Your task to perform on an android device: Install the Yelp app Image 0: 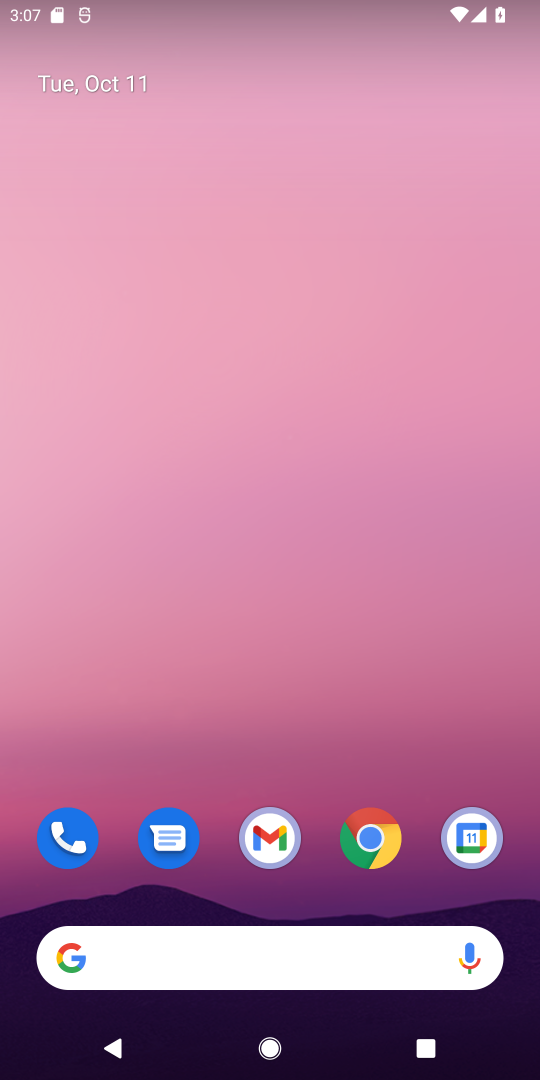
Step 0: click (361, 827)
Your task to perform on an android device: Install the Yelp app Image 1: 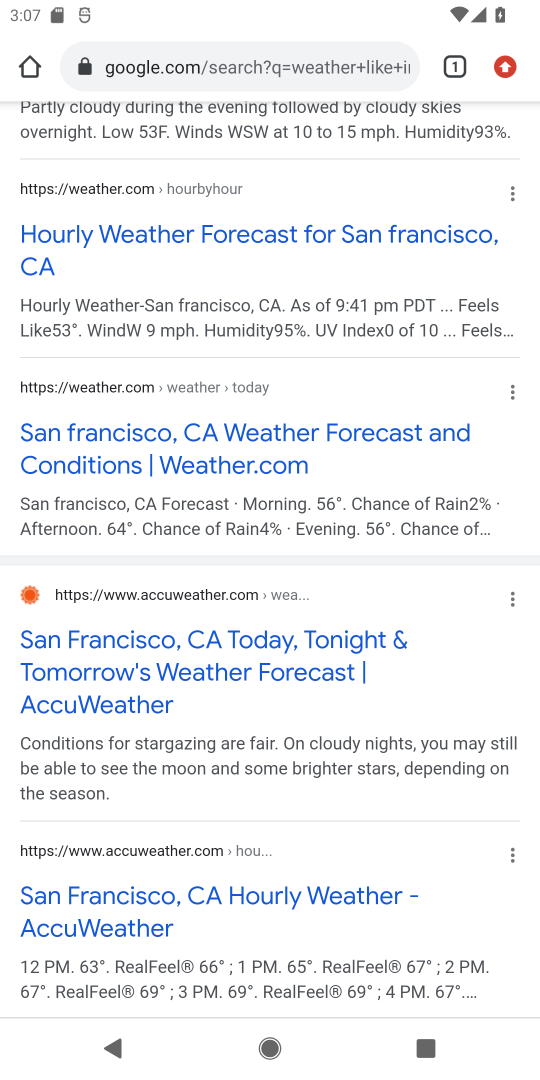
Step 1: press home button
Your task to perform on an android device: Install the Yelp app Image 2: 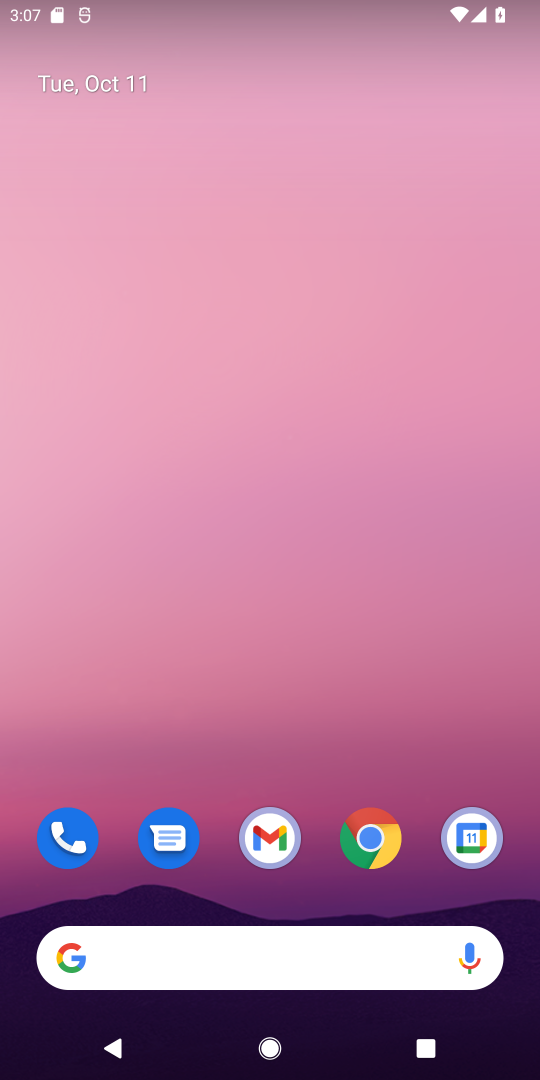
Step 2: drag from (302, 475) to (303, 43)
Your task to perform on an android device: Install the Yelp app Image 3: 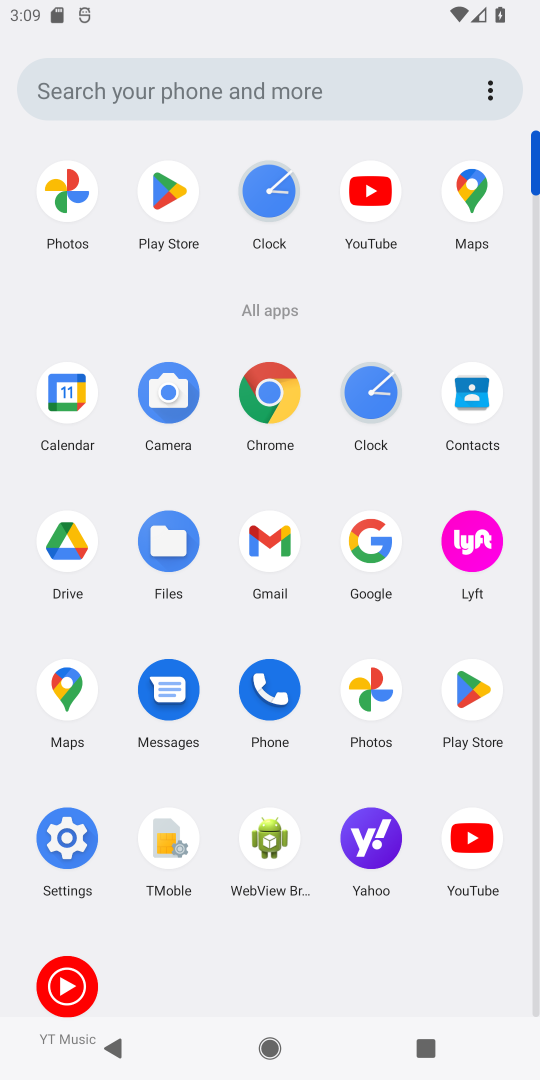
Step 3: click (167, 199)
Your task to perform on an android device: Install the Yelp app Image 4: 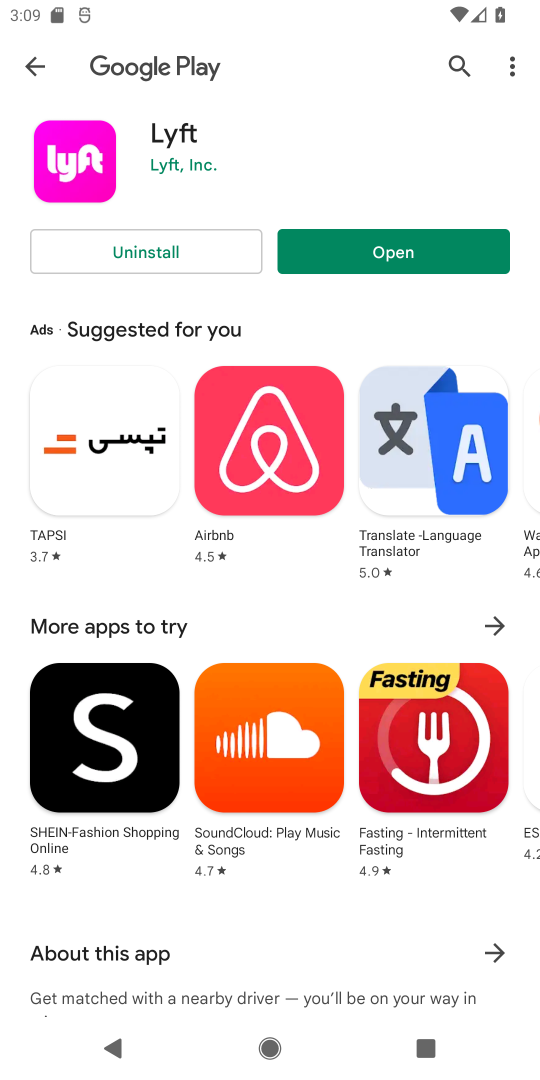
Step 4: click (452, 57)
Your task to perform on an android device: Install the Yelp app Image 5: 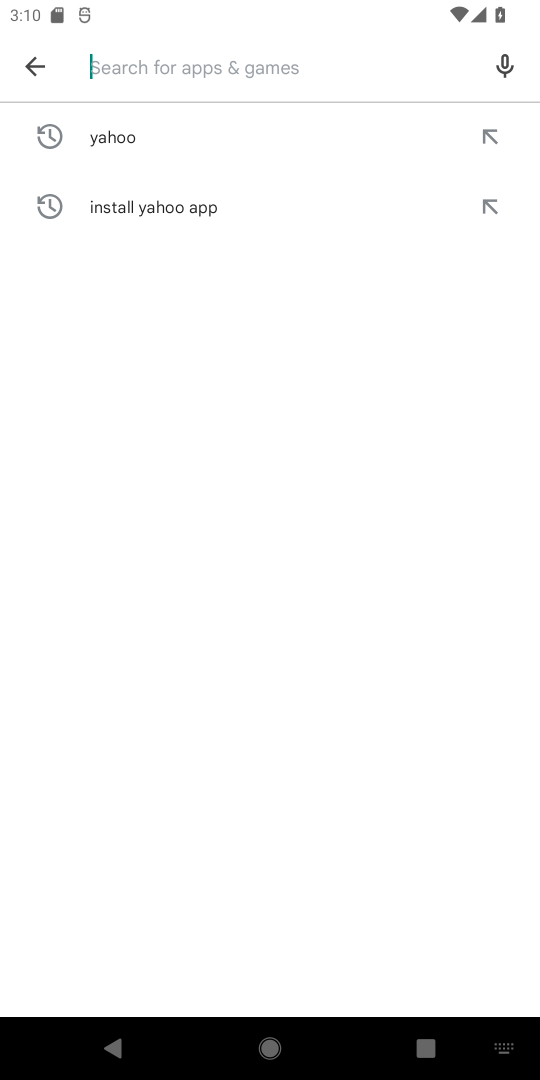
Step 5: type "yelp app"
Your task to perform on an android device: Install the Yelp app Image 6: 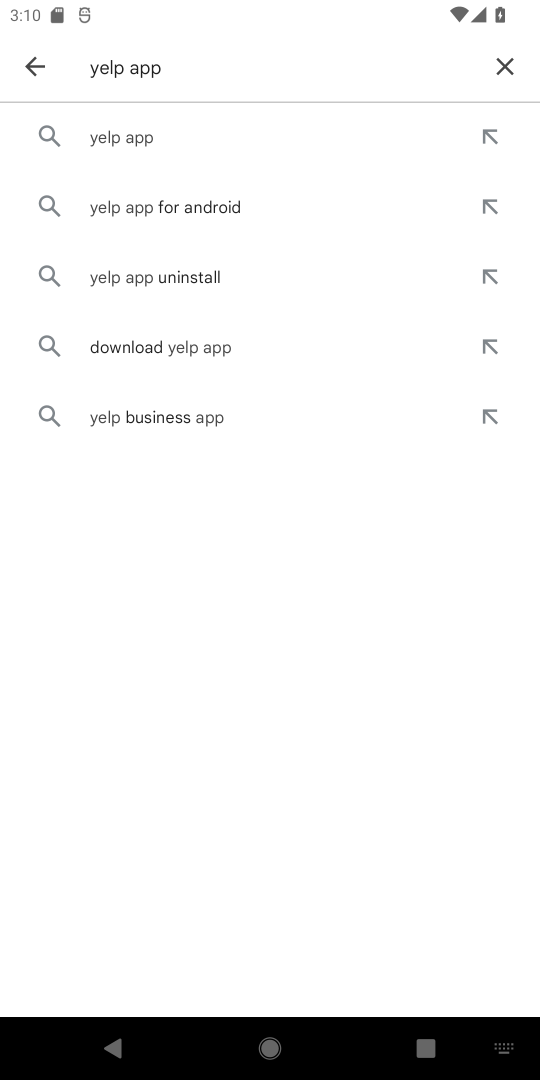
Step 6: click (131, 126)
Your task to perform on an android device: Install the Yelp app Image 7: 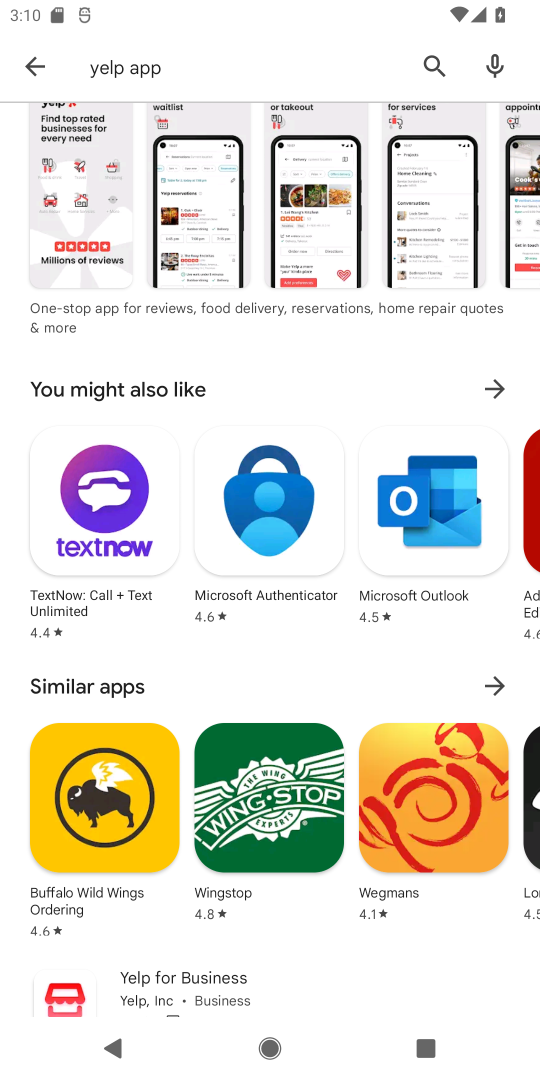
Step 7: drag from (336, 899) to (394, 209)
Your task to perform on an android device: Install the Yelp app Image 8: 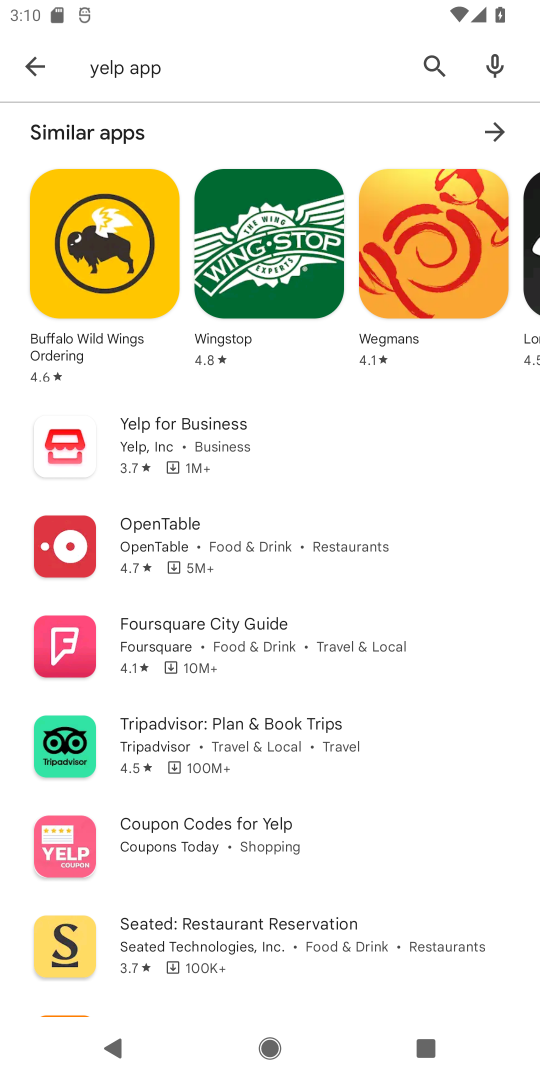
Step 8: drag from (373, 417) to (420, 972)
Your task to perform on an android device: Install the Yelp app Image 9: 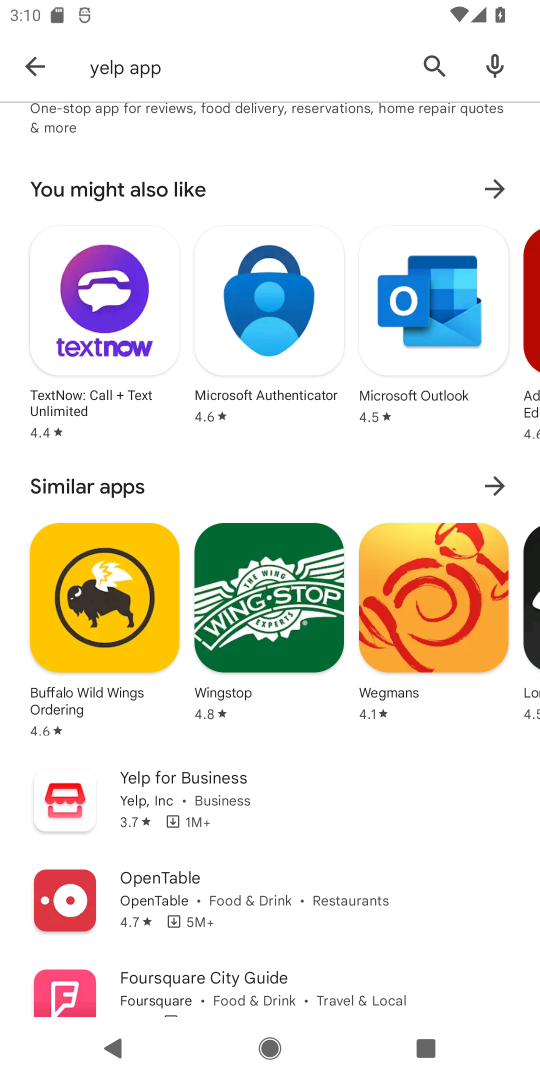
Step 9: click (184, 275)
Your task to perform on an android device: Install the Yelp app Image 10: 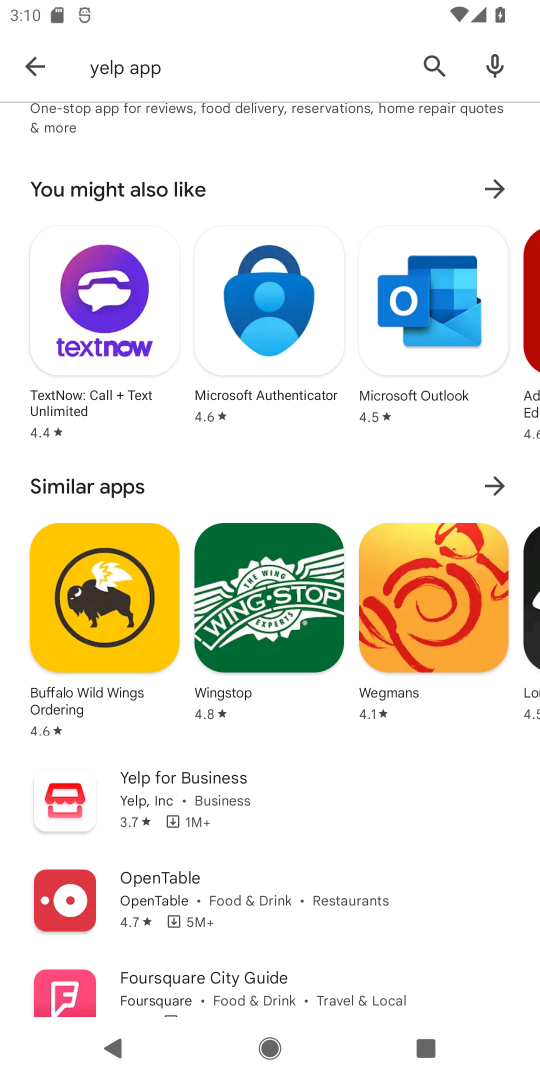
Step 10: drag from (232, 196) to (324, 756)
Your task to perform on an android device: Install the Yelp app Image 11: 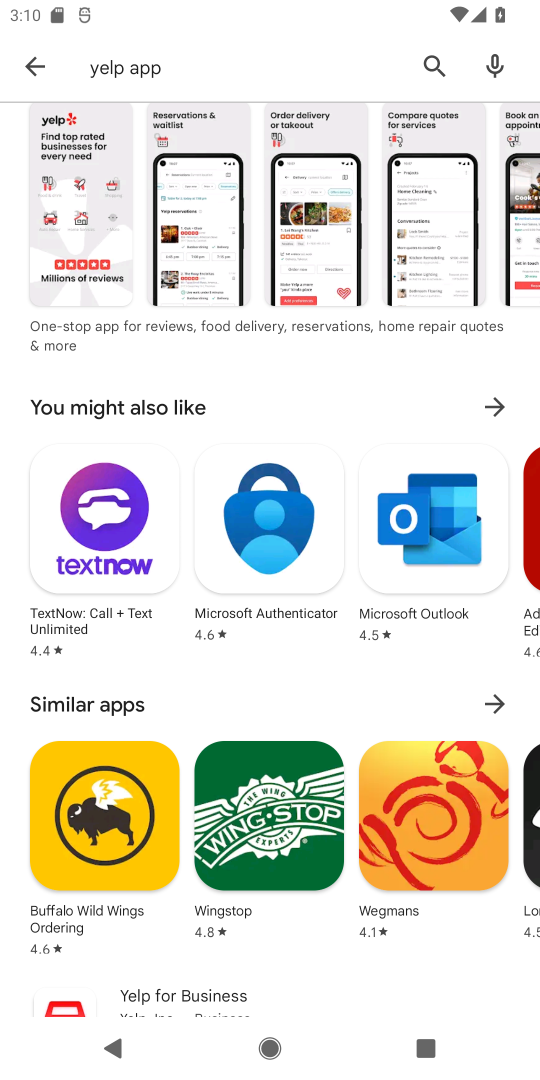
Step 11: drag from (498, 778) to (338, 278)
Your task to perform on an android device: Install the Yelp app Image 12: 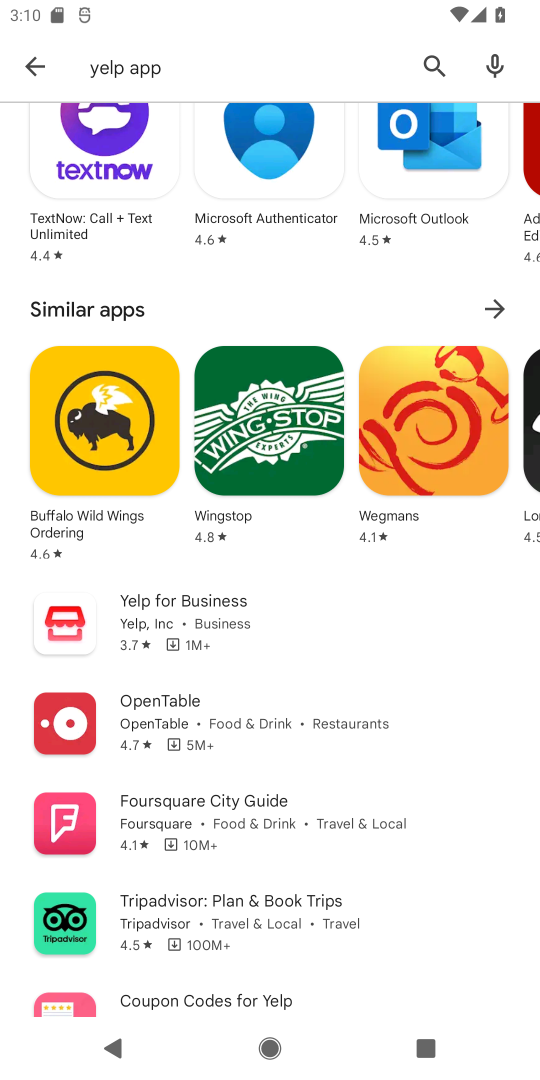
Step 12: drag from (135, 845) to (154, 382)
Your task to perform on an android device: Install the Yelp app Image 13: 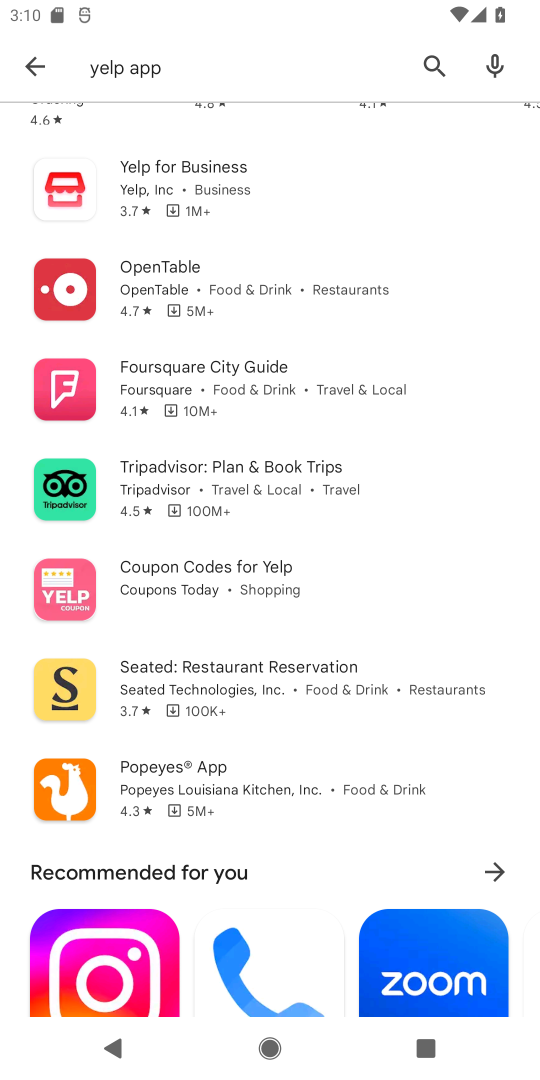
Step 13: drag from (274, 615) to (328, 152)
Your task to perform on an android device: Install the Yelp app Image 14: 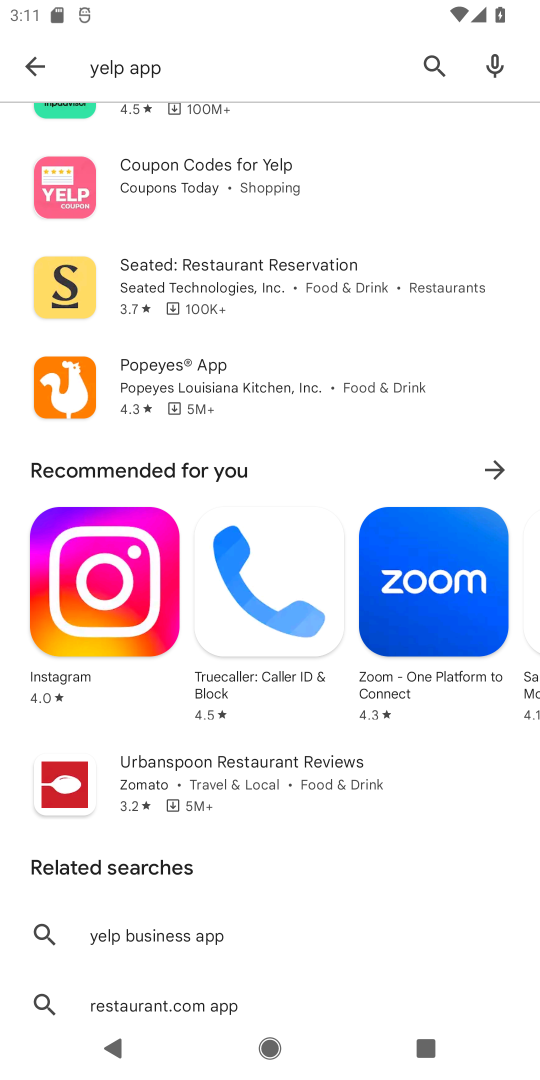
Step 14: click (130, 942)
Your task to perform on an android device: Install the Yelp app Image 15: 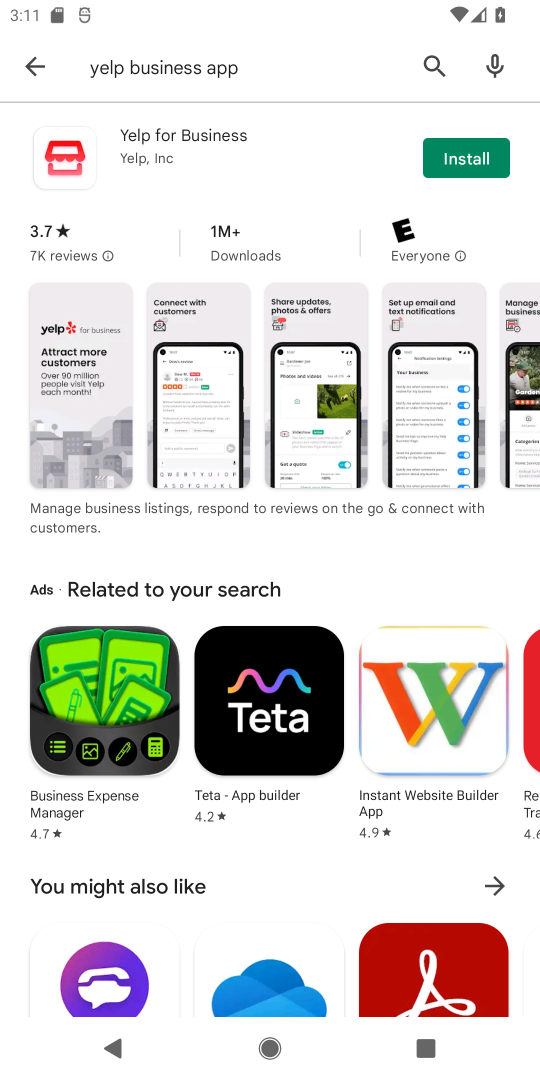
Step 15: click (483, 162)
Your task to perform on an android device: Install the Yelp app Image 16: 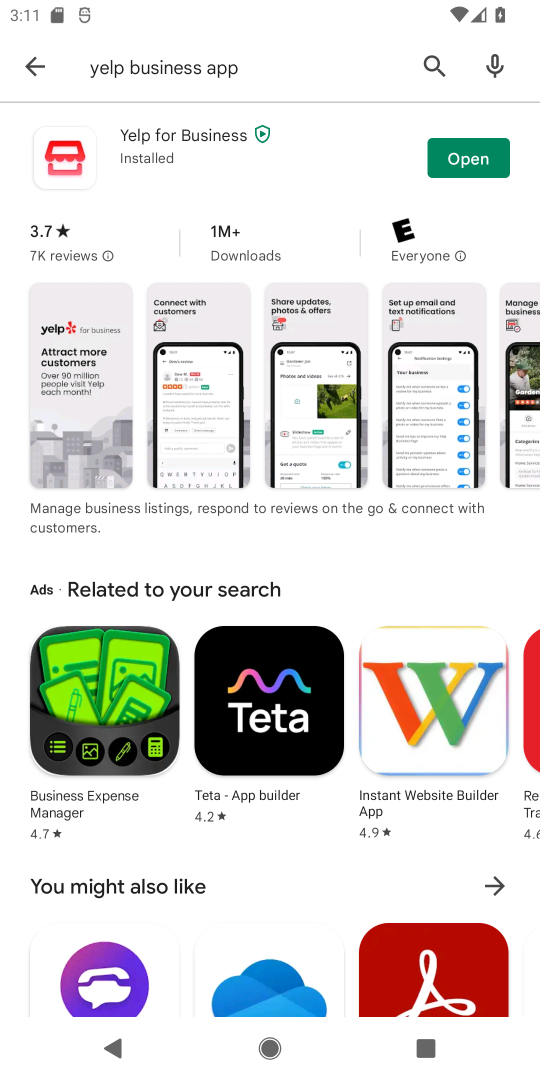
Step 16: task complete